Your task to perform on an android device: Search for vegetarian restaurants on Maps Image 0: 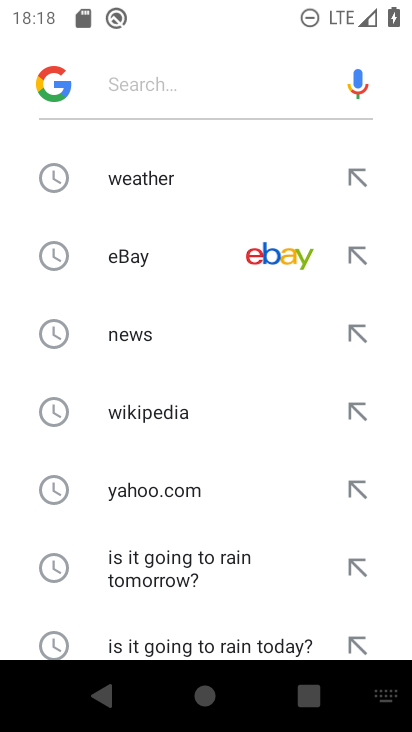
Step 0: press home button
Your task to perform on an android device: Search for vegetarian restaurants on Maps Image 1: 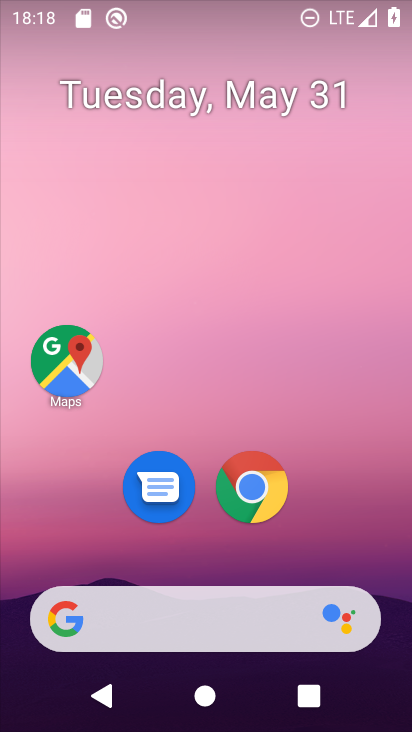
Step 1: click (66, 371)
Your task to perform on an android device: Search for vegetarian restaurants on Maps Image 2: 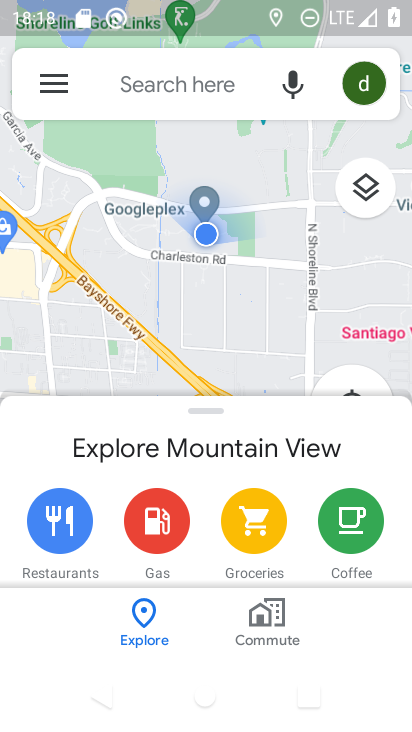
Step 2: click (164, 78)
Your task to perform on an android device: Search for vegetarian restaurants on Maps Image 3: 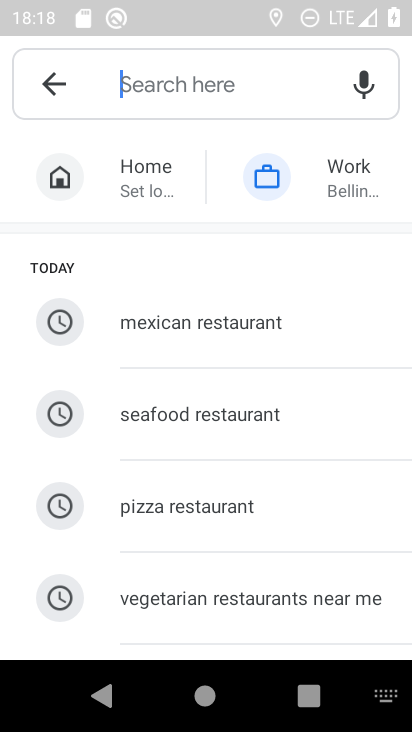
Step 3: click (258, 599)
Your task to perform on an android device: Search for vegetarian restaurants on Maps Image 4: 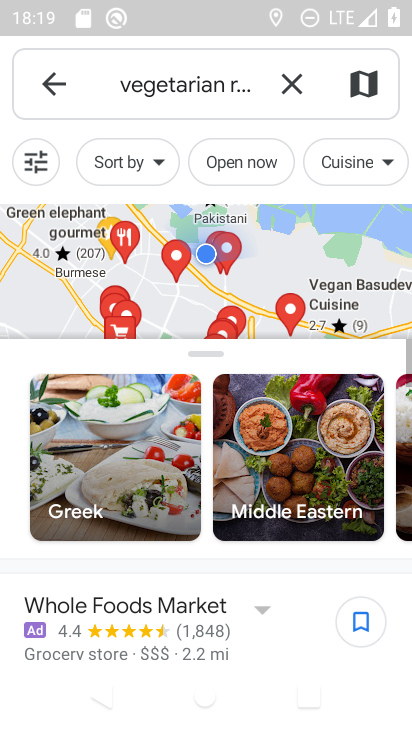
Step 4: task complete